Your task to perform on an android device: delete the emails in spam in the gmail app Image 0: 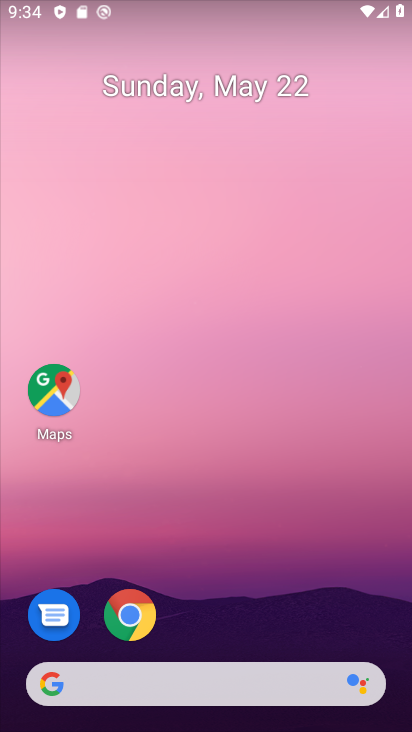
Step 0: drag from (250, 625) to (276, 173)
Your task to perform on an android device: delete the emails in spam in the gmail app Image 1: 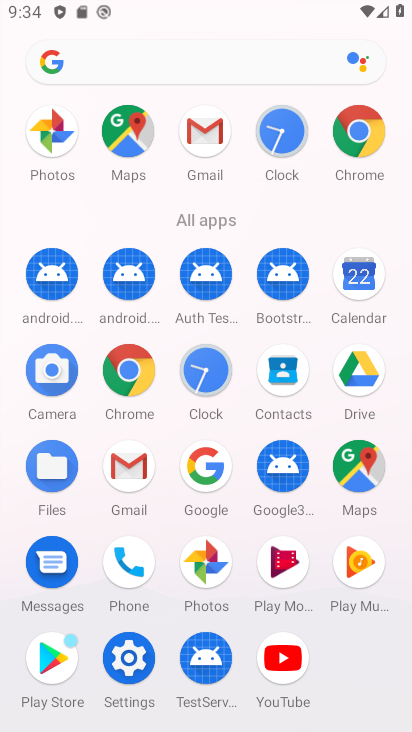
Step 1: click (225, 145)
Your task to perform on an android device: delete the emails in spam in the gmail app Image 2: 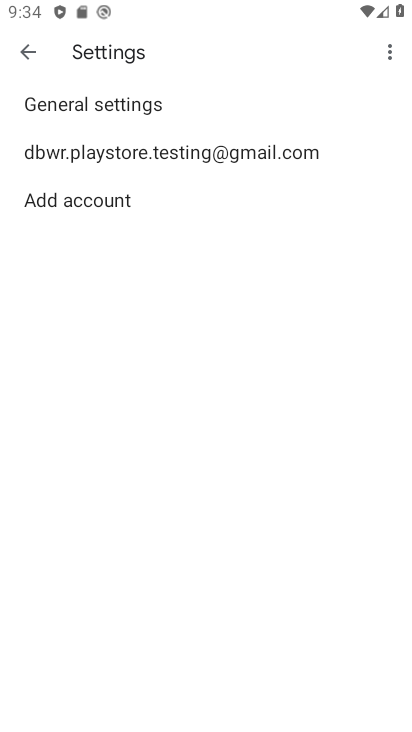
Step 2: click (207, 149)
Your task to perform on an android device: delete the emails in spam in the gmail app Image 3: 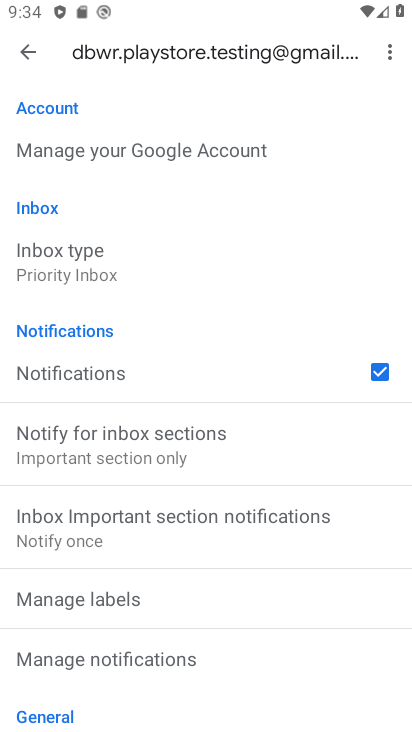
Step 3: click (25, 53)
Your task to perform on an android device: delete the emails in spam in the gmail app Image 4: 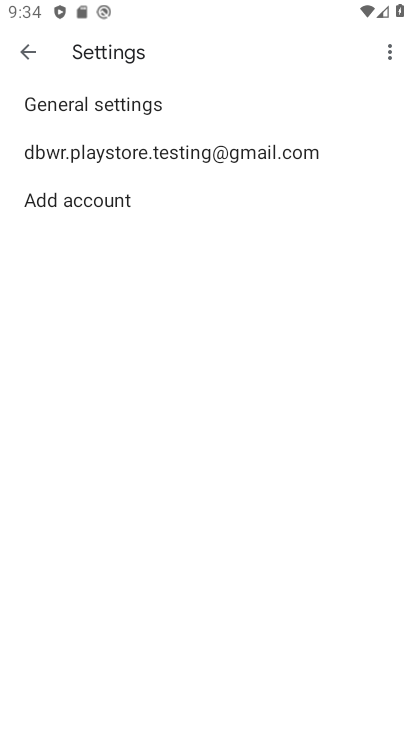
Step 4: click (25, 53)
Your task to perform on an android device: delete the emails in spam in the gmail app Image 5: 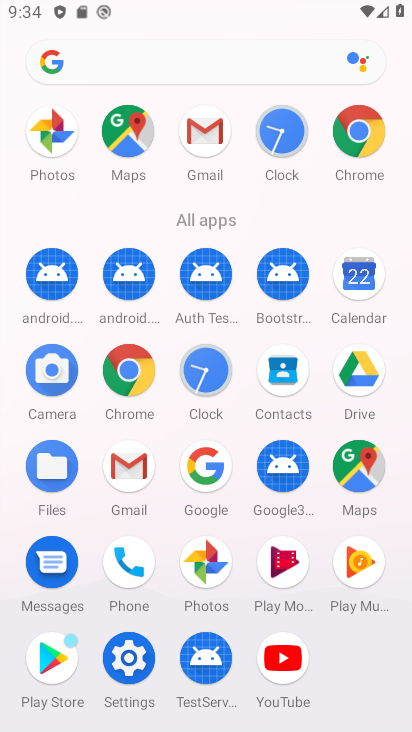
Step 5: click (148, 466)
Your task to perform on an android device: delete the emails in spam in the gmail app Image 6: 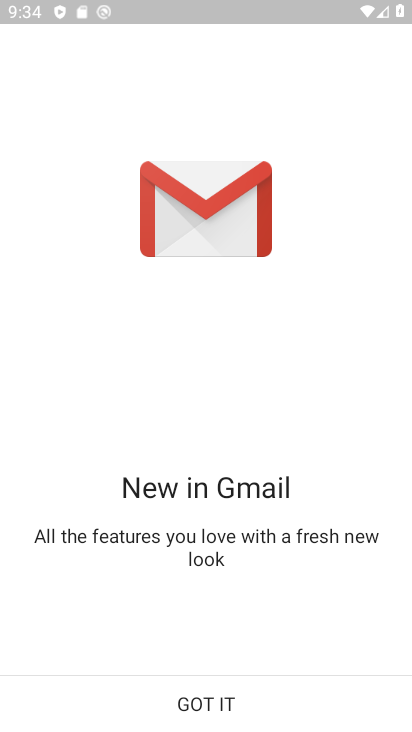
Step 6: click (220, 706)
Your task to perform on an android device: delete the emails in spam in the gmail app Image 7: 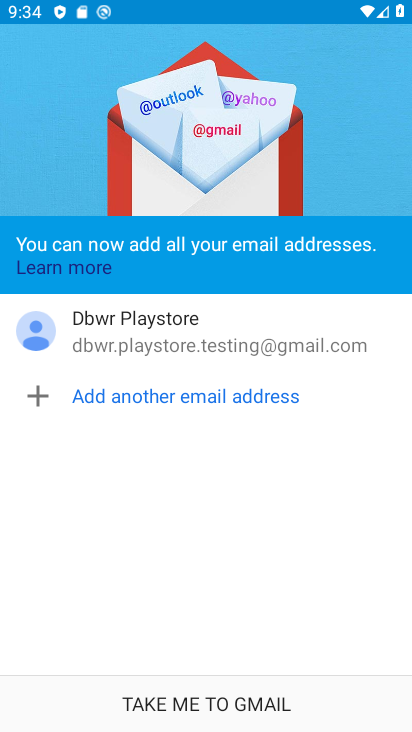
Step 7: click (255, 702)
Your task to perform on an android device: delete the emails in spam in the gmail app Image 8: 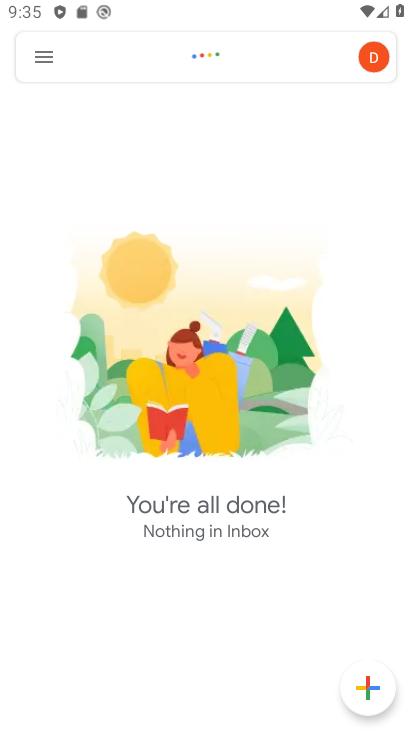
Step 8: click (34, 60)
Your task to perform on an android device: delete the emails in spam in the gmail app Image 9: 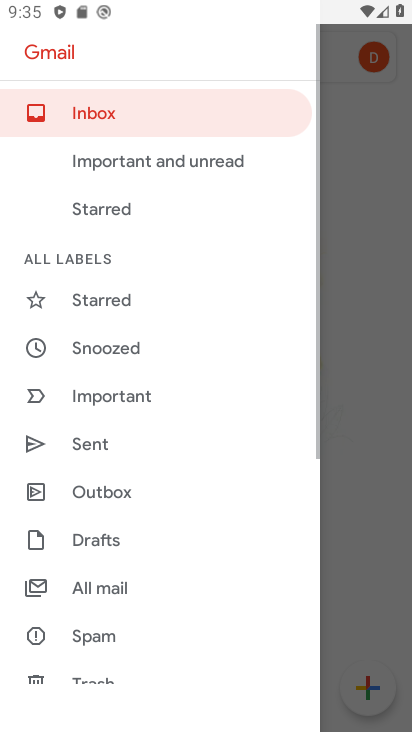
Step 9: drag from (178, 694) to (286, 209)
Your task to perform on an android device: delete the emails in spam in the gmail app Image 10: 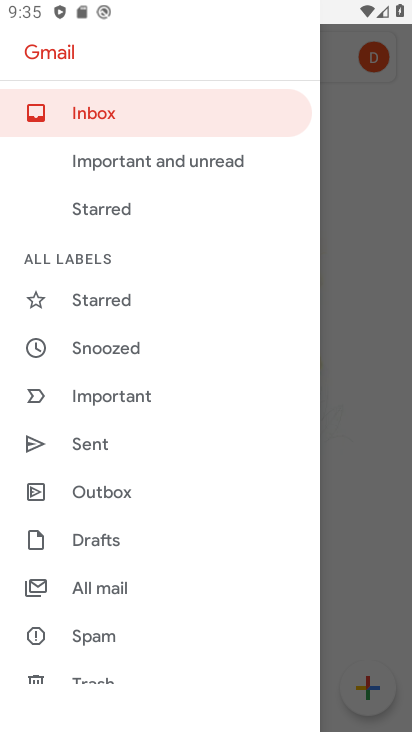
Step 10: drag from (111, 563) to (190, 274)
Your task to perform on an android device: delete the emails in spam in the gmail app Image 11: 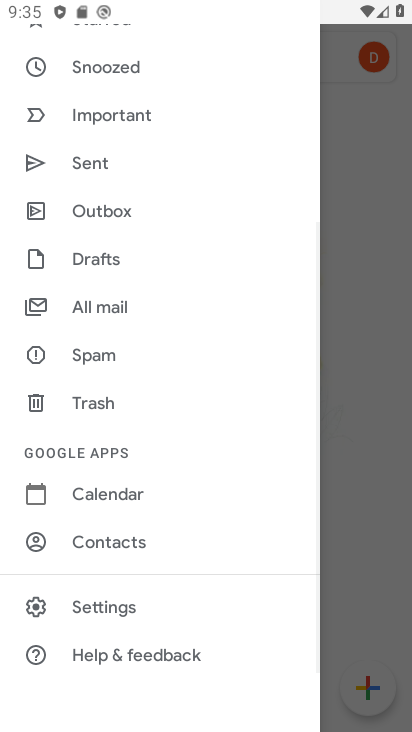
Step 11: click (97, 355)
Your task to perform on an android device: delete the emails in spam in the gmail app Image 12: 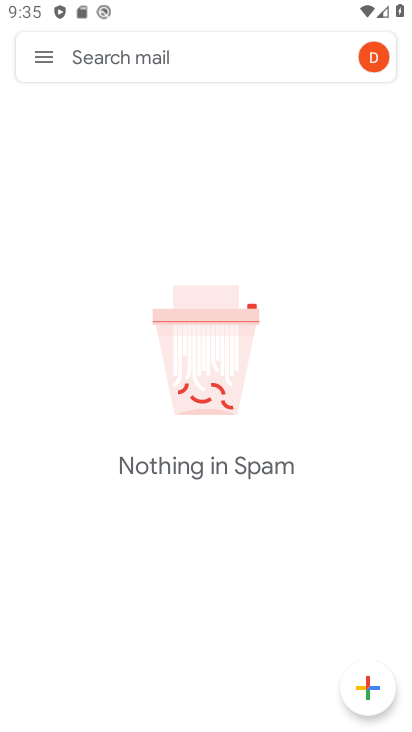
Step 12: task complete